Your task to perform on an android device: Go to notification settings Image 0: 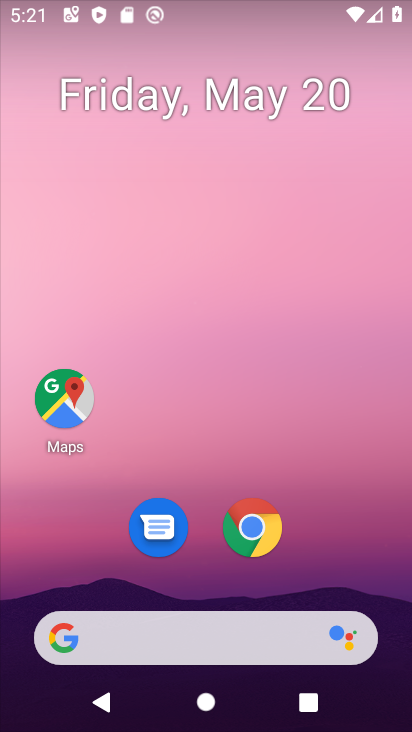
Step 0: drag from (294, 623) to (277, 135)
Your task to perform on an android device: Go to notification settings Image 1: 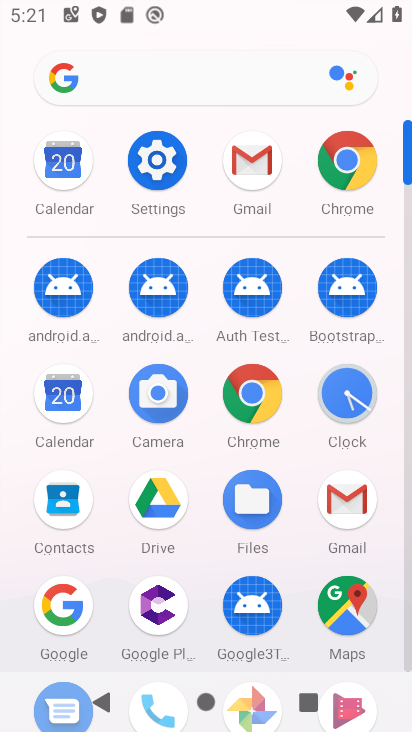
Step 1: click (158, 170)
Your task to perform on an android device: Go to notification settings Image 2: 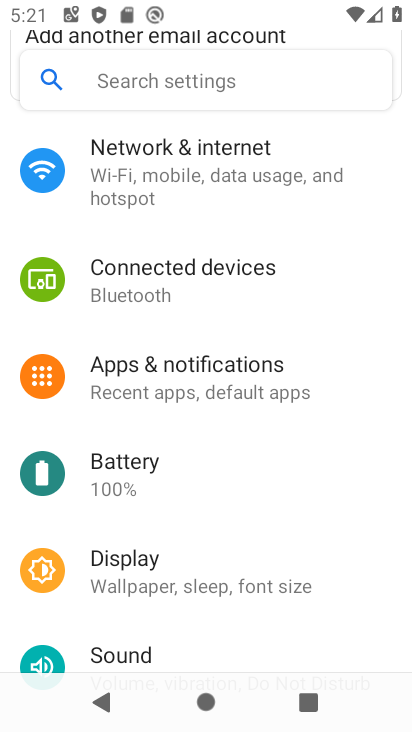
Step 2: click (253, 361)
Your task to perform on an android device: Go to notification settings Image 3: 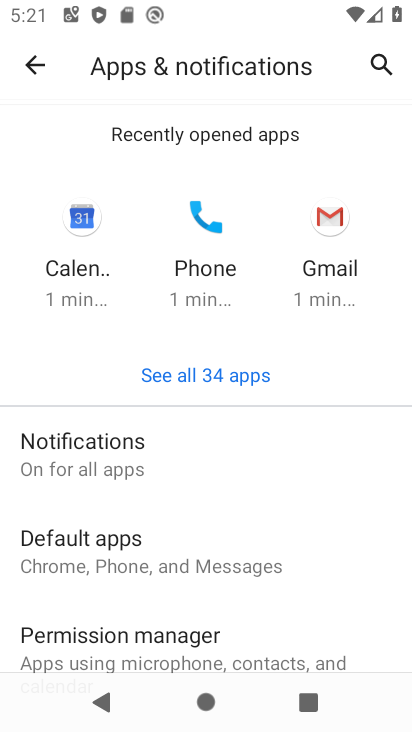
Step 3: task complete